Your task to perform on an android device: toggle show notifications on the lock screen Image 0: 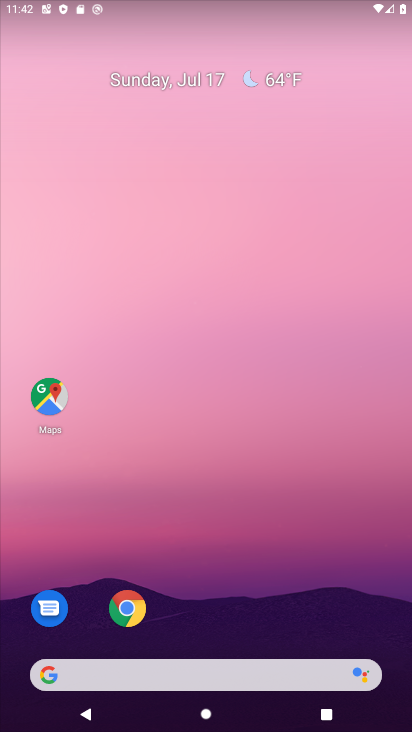
Step 0: drag from (382, 625) to (247, 48)
Your task to perform on an android device: toggle show notifications on the lock screen Image 1: 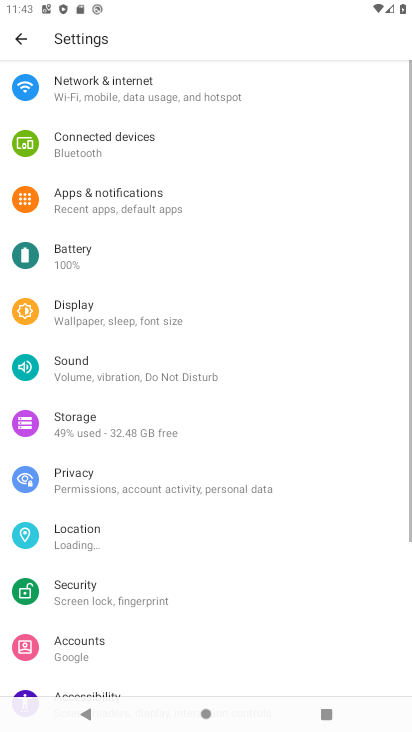
Step 1: press home button
Your task to perform on an android device: toggle show notifications on the lock screen Image 2: 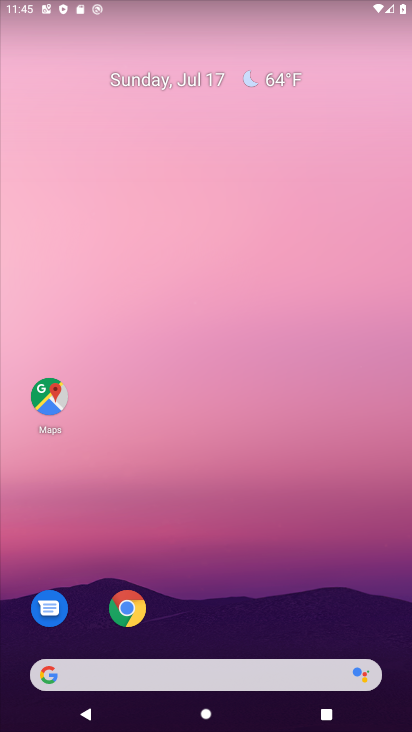
Step 2: drag from (334, 680) to (245, 0)
Your task to perform on an android device: toggle show notifications on the lock screen Image 3: 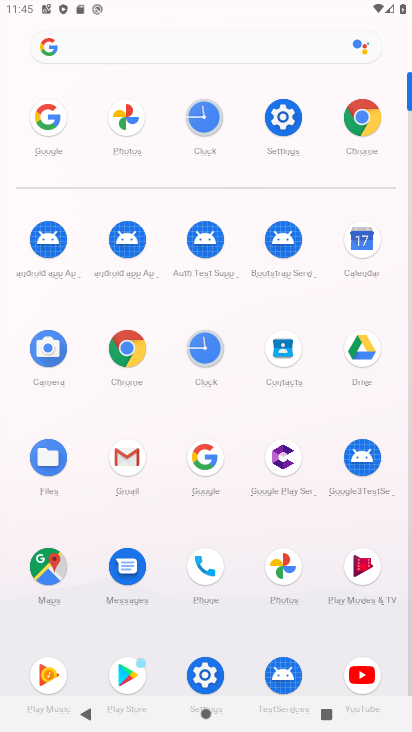
Step 3: click (290, 120)
Your task to perform on an android device: toggle show notifications on the lock screen Image 4: 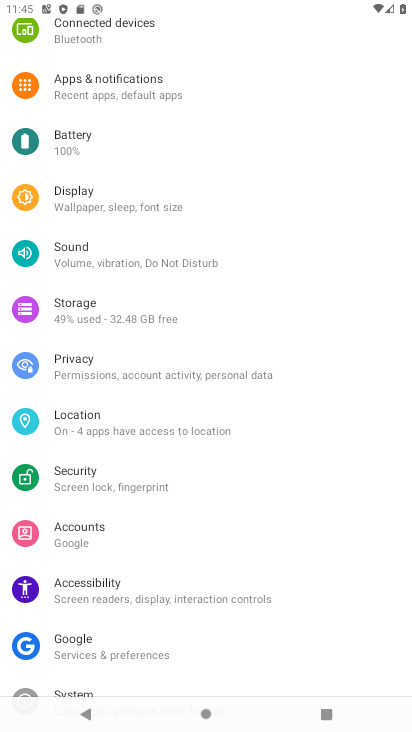
Step 4: click (85, 68)
Your task to perform on an android device: toggle show notifications on the lock screen Image 5: 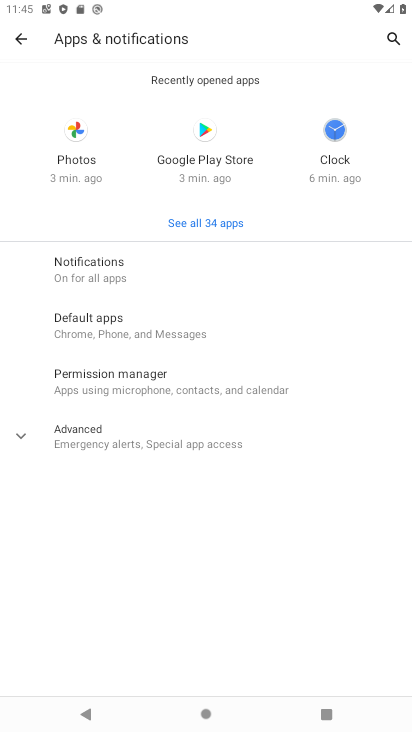
Step 5: click (161, 265)
Your task to perform on an android device: toggle show notifications on the lock screen Image 6: 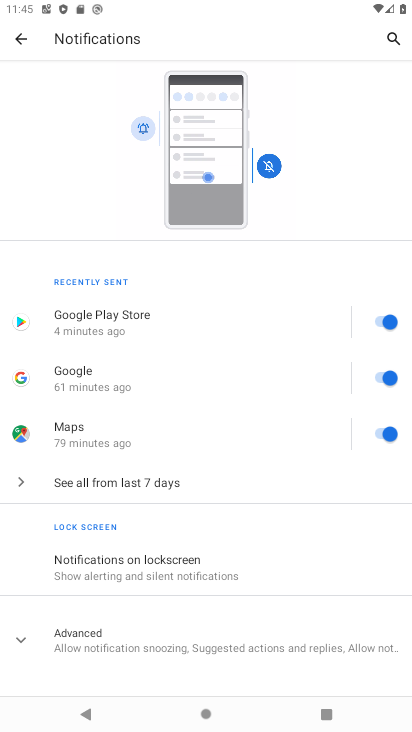
Step 6: click (144, 556)
Your task to perform on an android device: toggle show notifications on the lock screen Image 7: 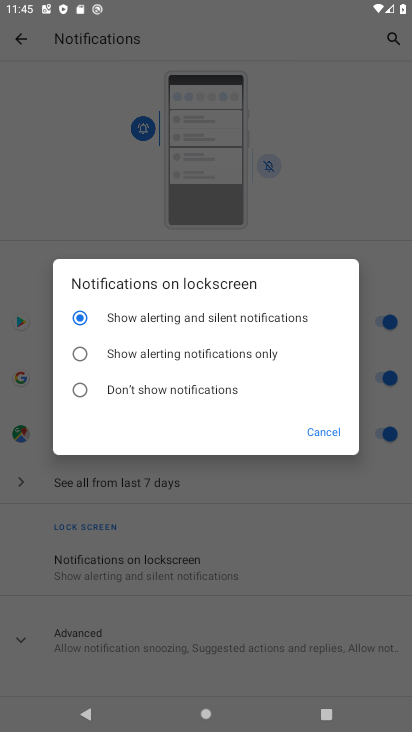
Step 7: click (152, 392)
Your task to perform on an android device: toggle show notifications on the lock screen Image 8: 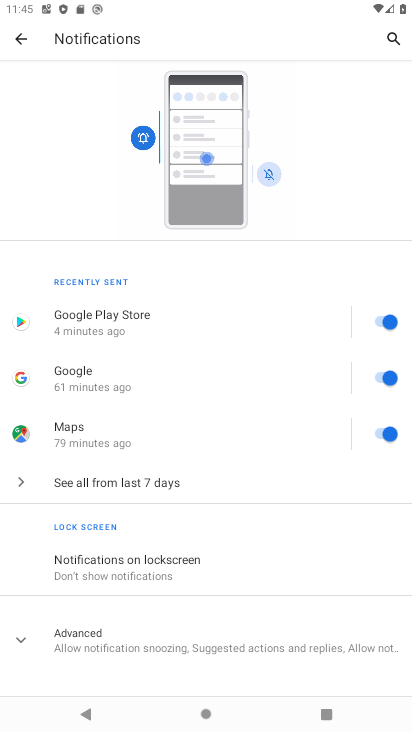
Step 8: task complete